Your task to perform on an android device: Open battery settings Image 0: 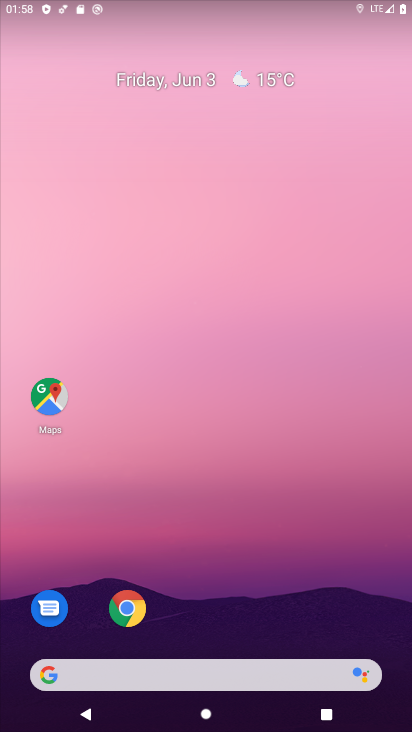
Step 0: drag from (239, 555) to (180, 138)
Your task to perform on an android device: Open battery settings Image 1: 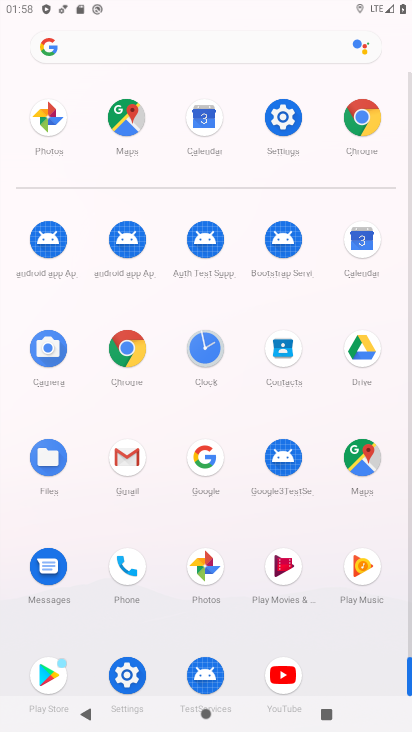
Step 1: click (288, 114)
Your task to perform on an android device: Open battery settings Image 2: 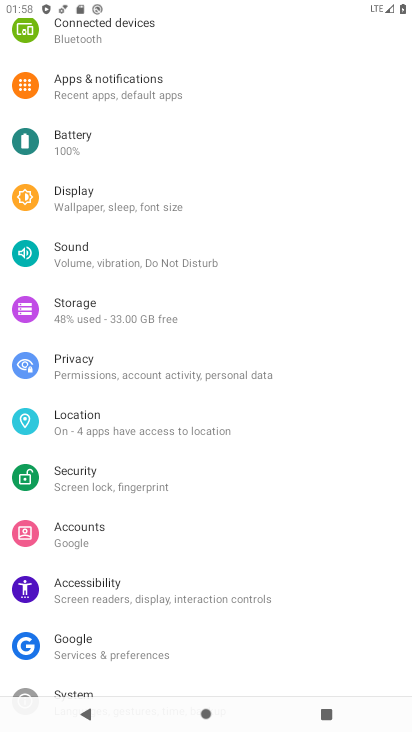
Step 2: click (123, 140)
Your task to perform on an android device: Open battery settings Image 3: 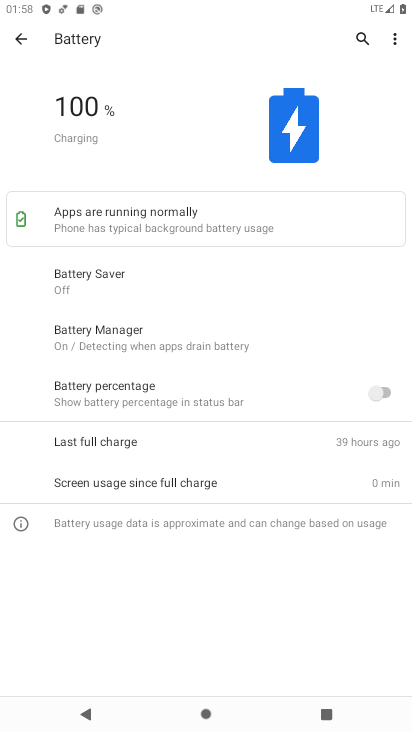
Step 3: task complete